Your task to perform on an android device: Play the last video I watched on Youtube Image 0: 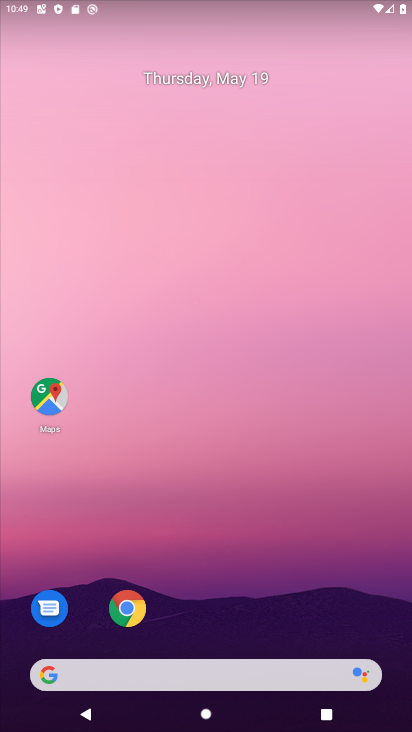
Step 0: drag from (393, 628) to (389, 300)
Your task to perform on an android device: Play the last video I watched on Youtube Image 1: 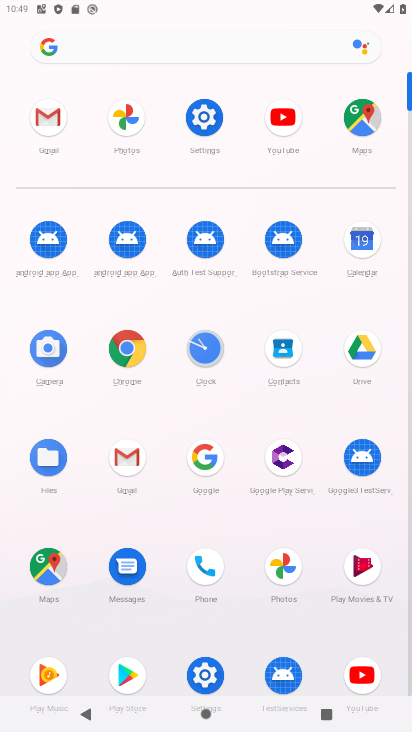
Step 1: click (347, 685)
Your task to perform on an android device: Play the last video I watched on Youtube Image 2: 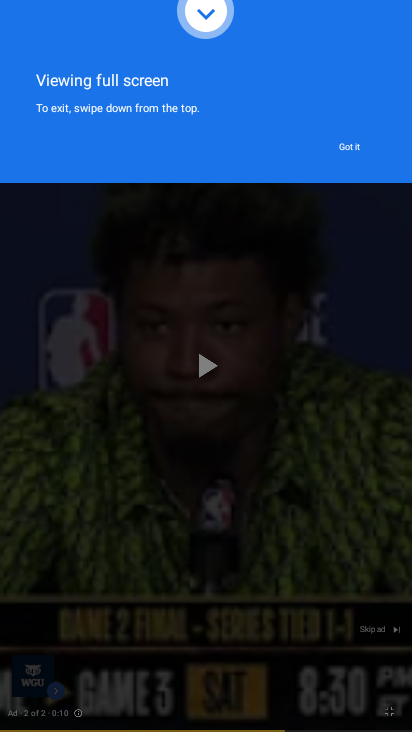
Step 2: press home button
Your task to perform on an android device: Play the last video I watched on Youtube Image 3: 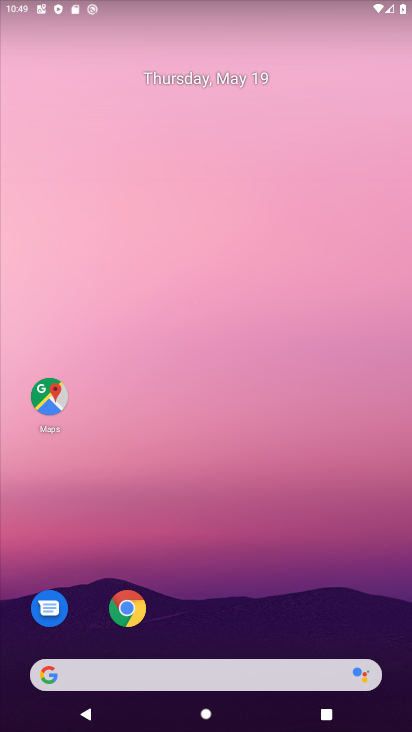
Step 3: drag from (384, 674) to (357, 137)
Your task to perform on an android device: Play the last video I watched on Youtube Image 4: 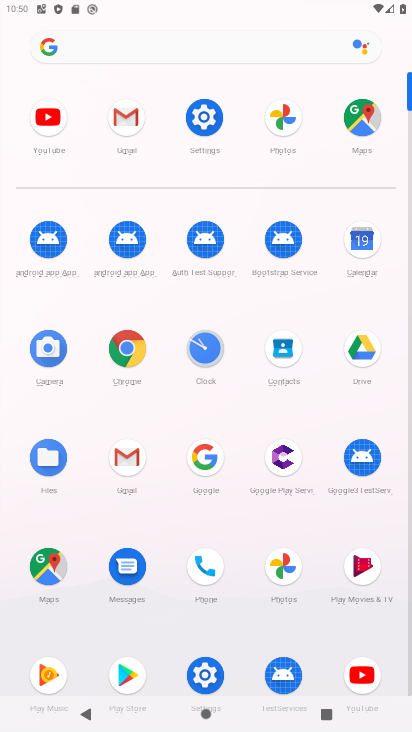
Step 4: click (353, 672)
Your task to perform on an android device: Play the last video I watched on Youtube Image 5: 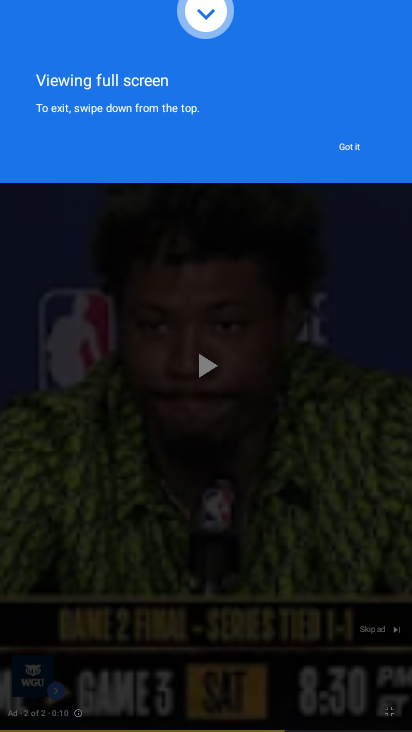
Step 5: click (200, 372)
Your task to perform on an android device: Play the last video I watched on Youtube Image 6: 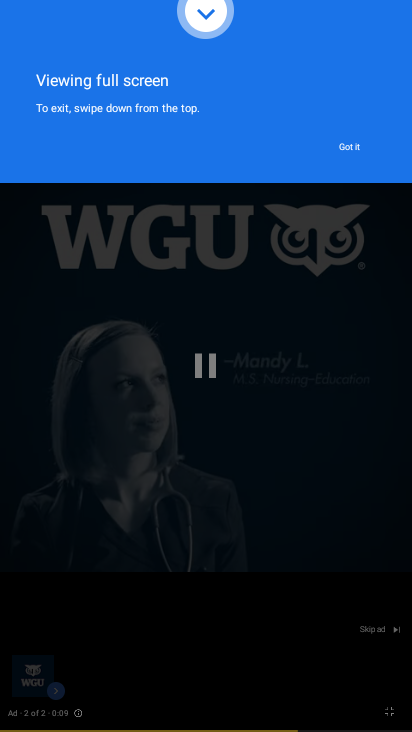
Step 6: task complete